Your task to perform on an android device: Open Android settings Image 0: 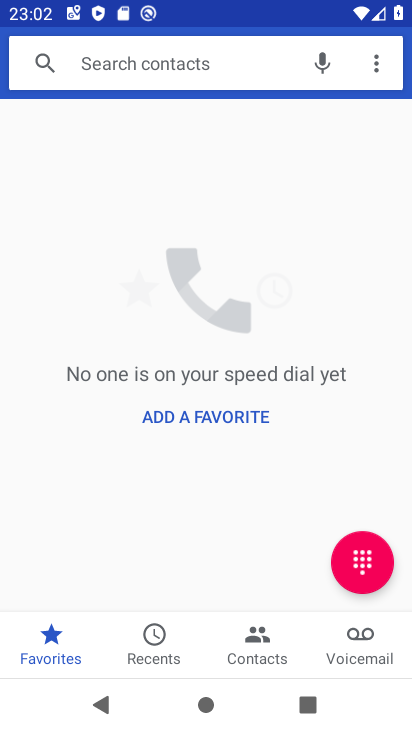
Step 0: press home button
Your task to perform on an android device: Open Android settings Image 1: 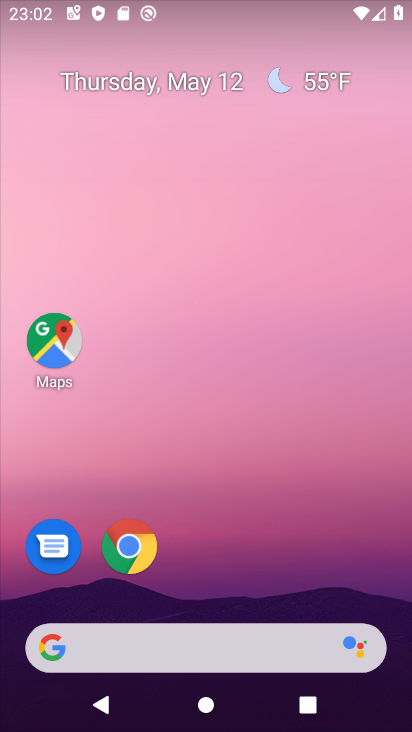
Step 1: click (193, 584)
Your task to perform on an android device: Open Android settings Image 2: 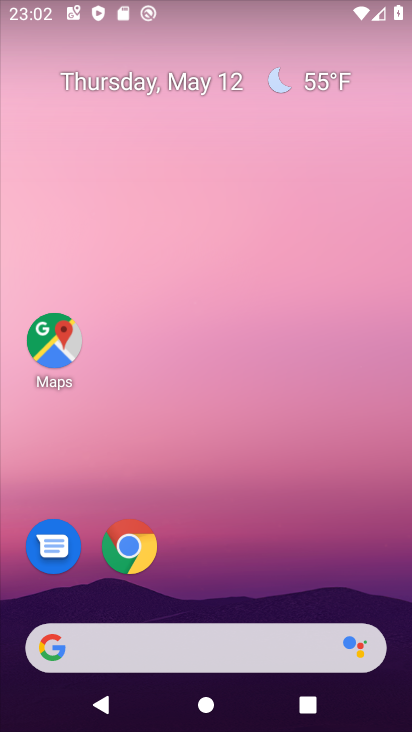
Step 2: drag from (193, 576) to (267, 86)
Your task to perform on an android device: Open Android settings Image 3: 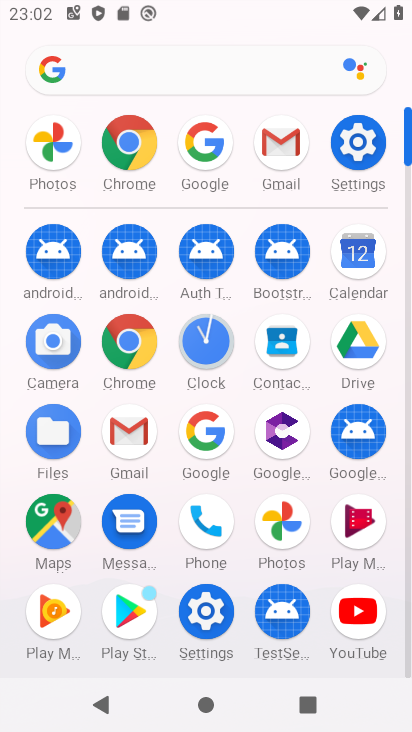
Step 3: click (353, 141)
Your task to perform on an android device: Open Android settings Image 4: 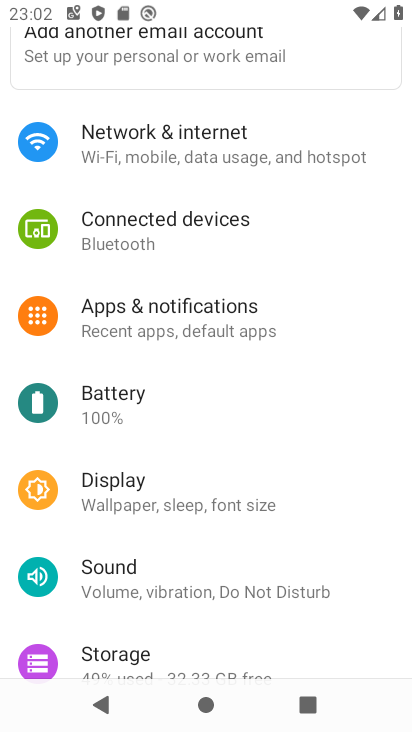
Step 4: drag from (211, 605) to (330, 147)
Your task to perform on an android device: Open Android settings Image 5: 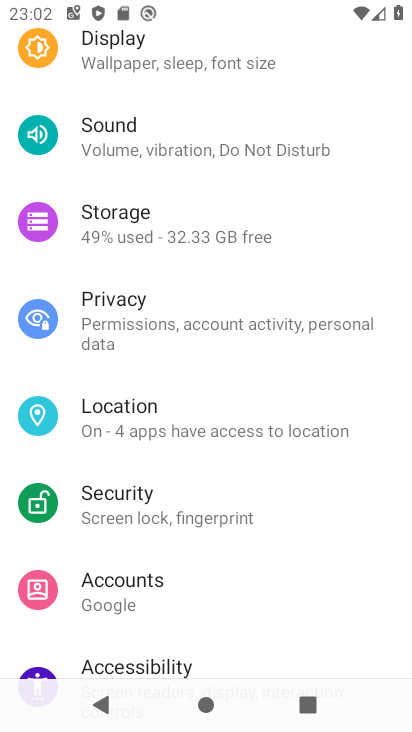
Step 5: drag from (196, 606) to (239, 312)
Your task to perform on an android device: Open Android settings Image 6: 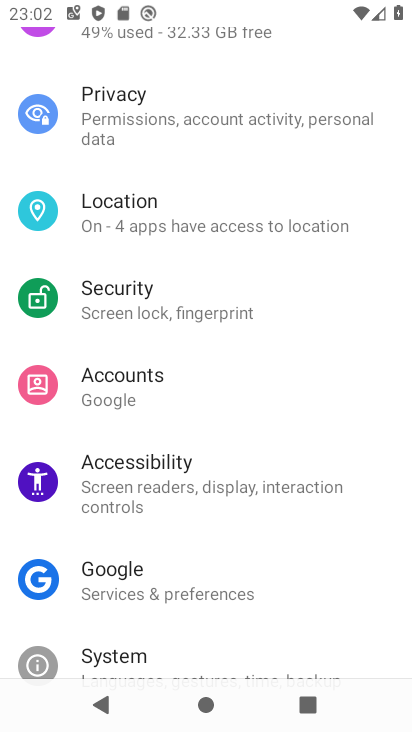
Step 6: drag from (200, 638) to (297, 224)
Your task to perform on an android device: Open Android settings Image 7: 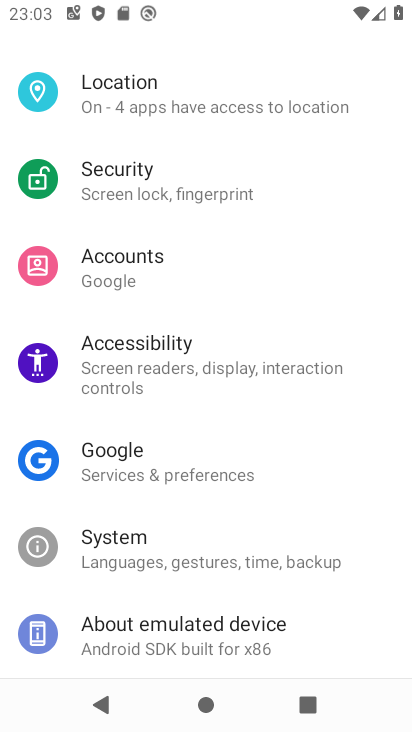
Step 7: click (201, 661)
Your task to perform on an android device: Open Android settings Image 8: 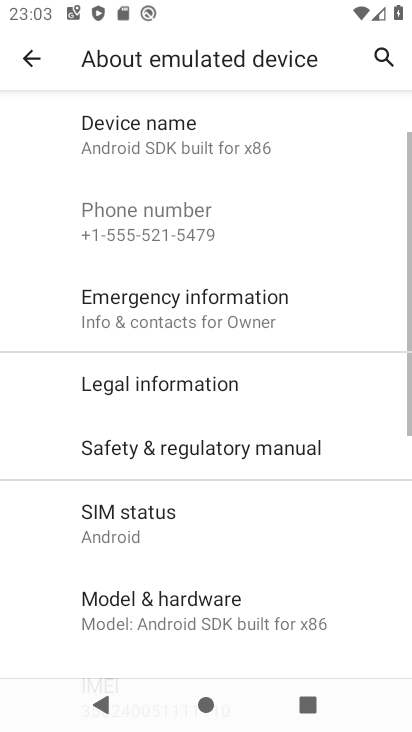
Step 8: task complete